Your task to perform on an android device: install app "Google Home" Image 0: 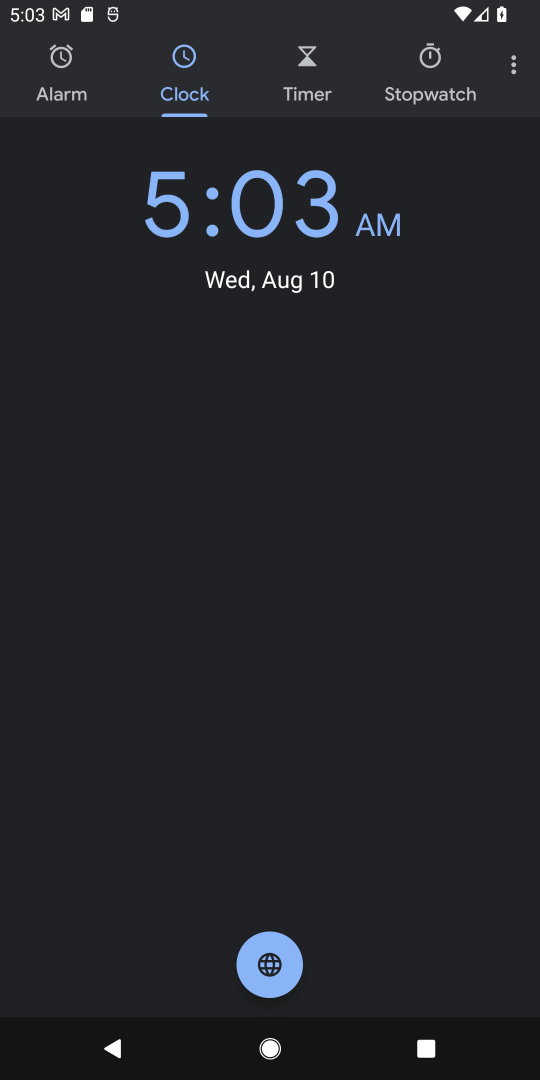
Step 0: press home button
Your task to perform on an android device: install app "Google Home" Image 1: 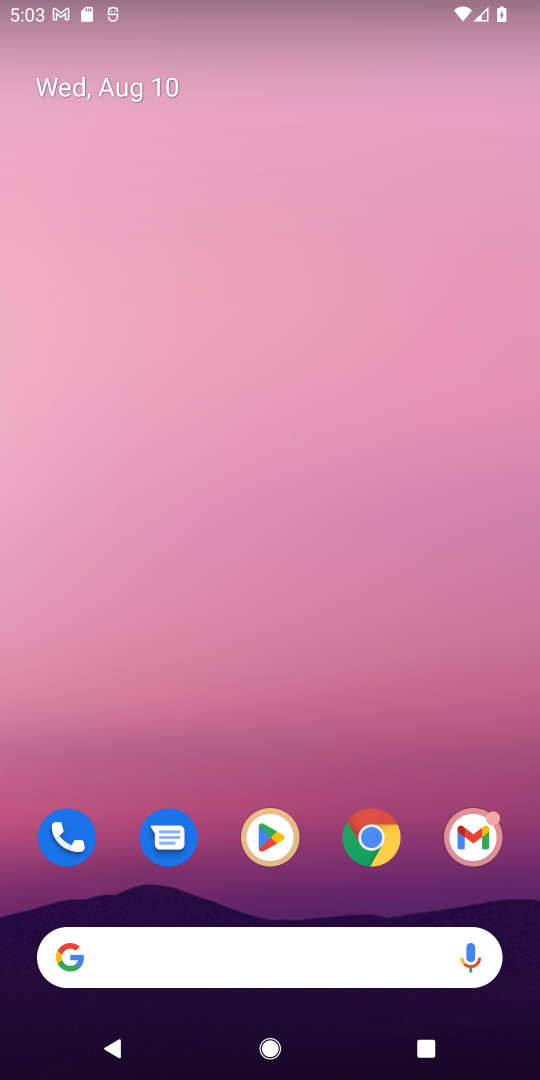
Step 1: click (256, 838)
Your task to perform on an android device: install app "Google Home" Image 2: 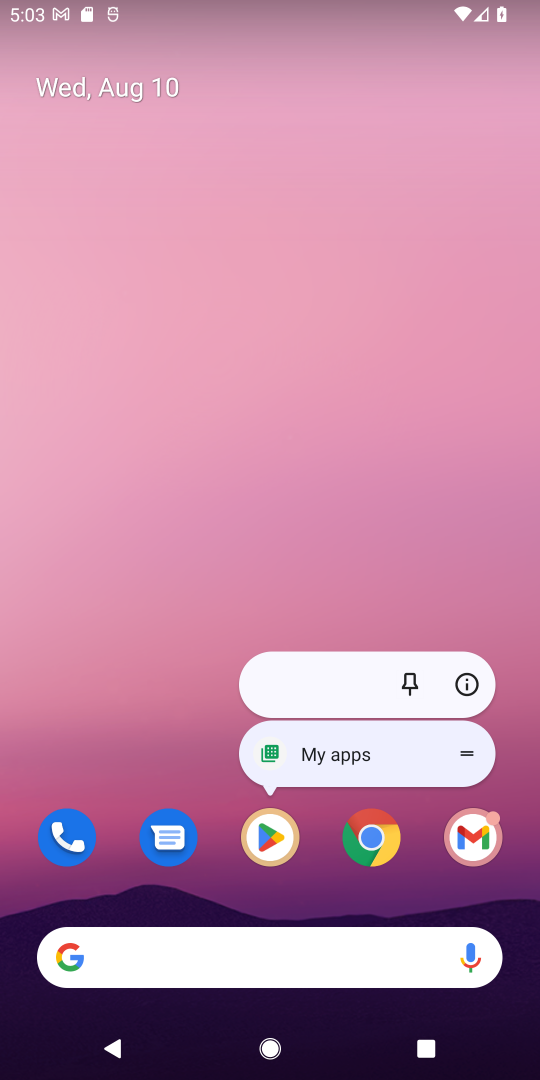
Step 2: click (256, 838)
Your task to perform on an android device: install app "Google Home" Image 3: 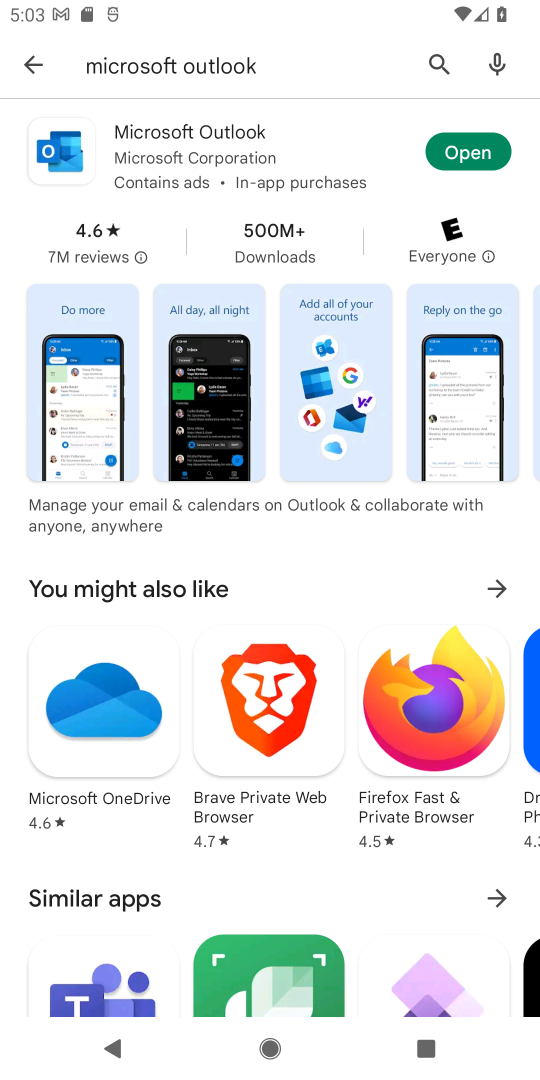
Step 3: click (432, 55)
Your task to perform on an android device: install app "Google Home" Image 4: 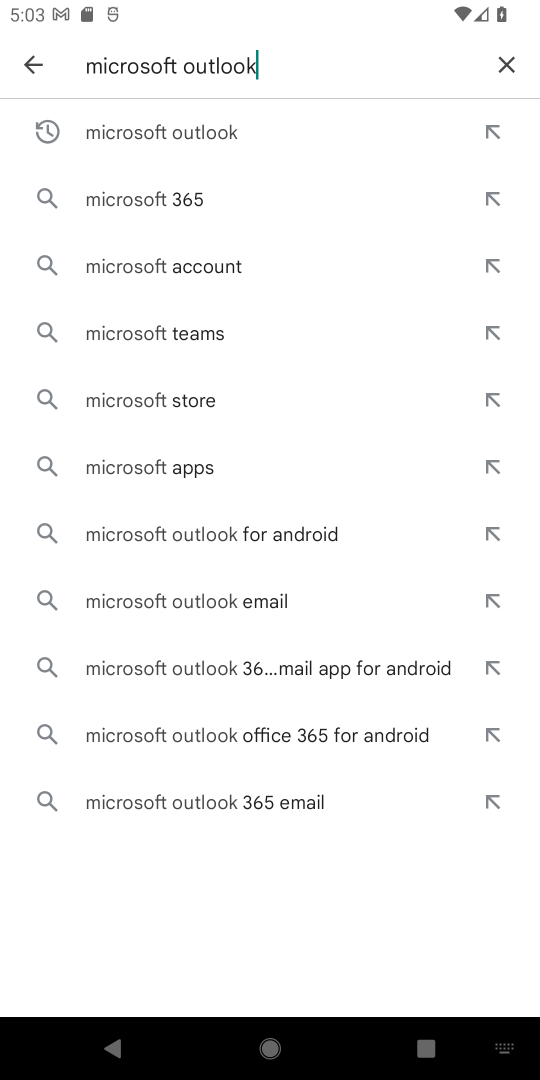
Step 4: click (507, 58)
Your task to perform on an android device: install app "Google Home" Image 5: 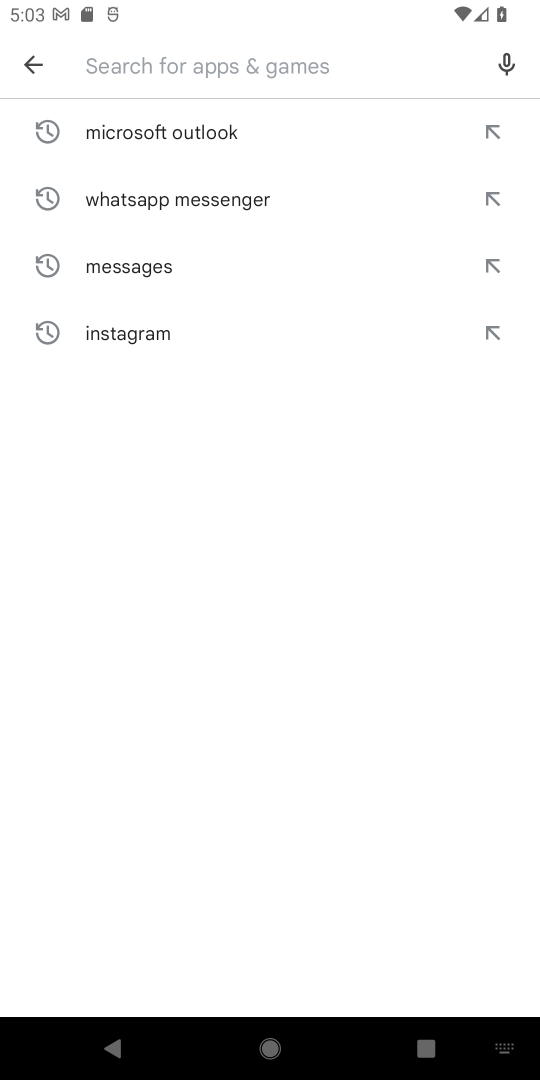
Step 5: type "Google Home"
Your task to perform on an android device: install app "Google Home" Image 6: 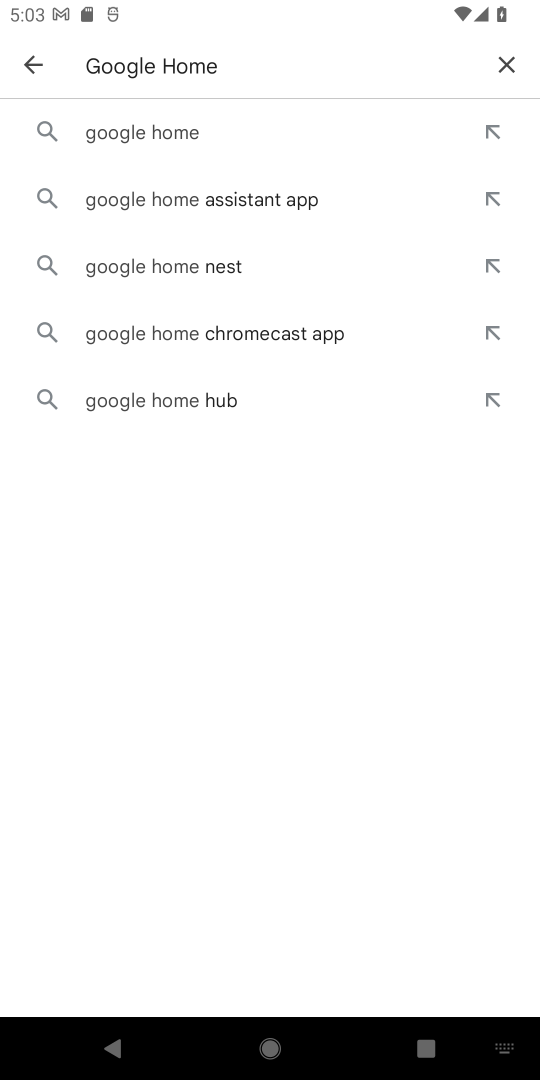
Step 6: click (157, 125)
Your task to perform on an android device: install app "Google Home" Image 7: 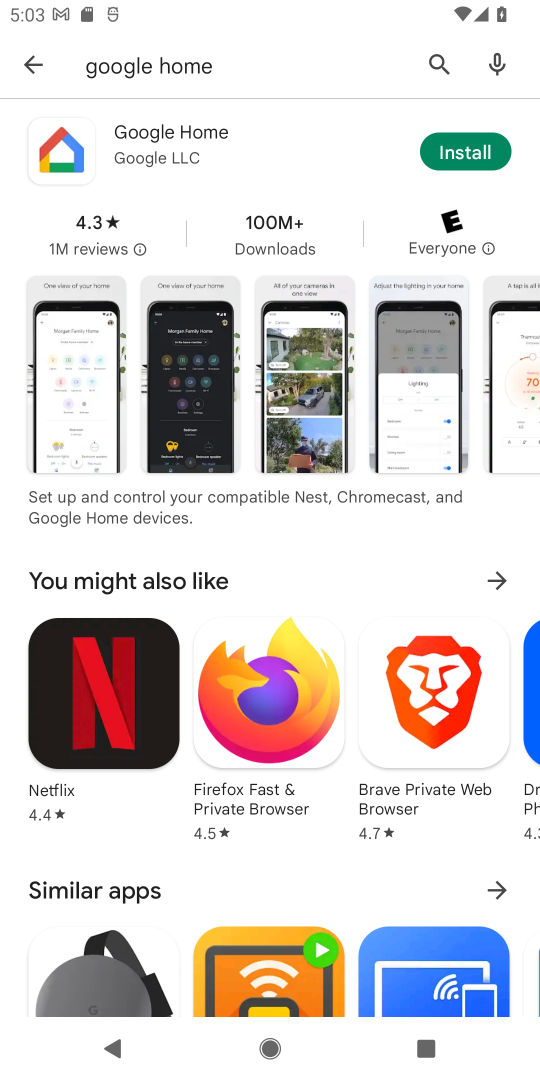
Step 7: click (465, 146)
Your task to perform on an android device: install app "Google Home" Image 8: 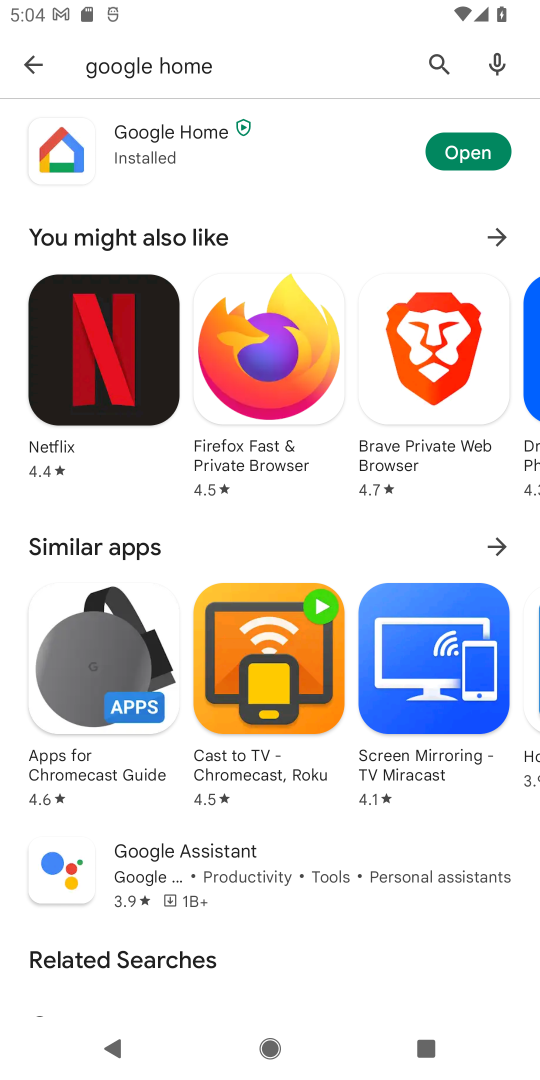
Step 8: task complete